Your task to perform on an android device: move an email to a new category in the gmail app Image 0: 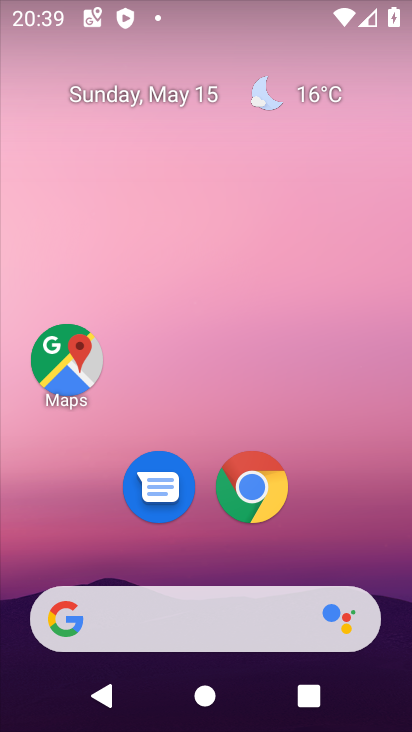
Step 0: drag from (391, 633) to (352, 116)
Your task to perform on an android device: move an email to a new category in the gmail app Image 1: 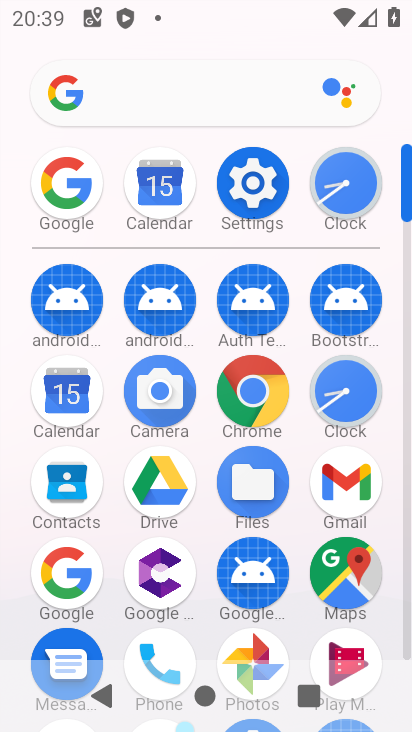
Step 1: click (344, 476)
Your task to perform on an android device: move an email to a new category in the gmail app Image 2: 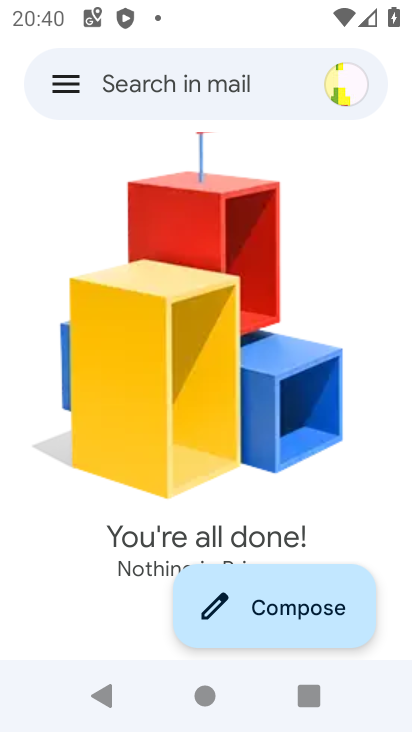
Step 2: press home button
Your task to perform on an android device: move an email to a new category in the gmail app Image 3: 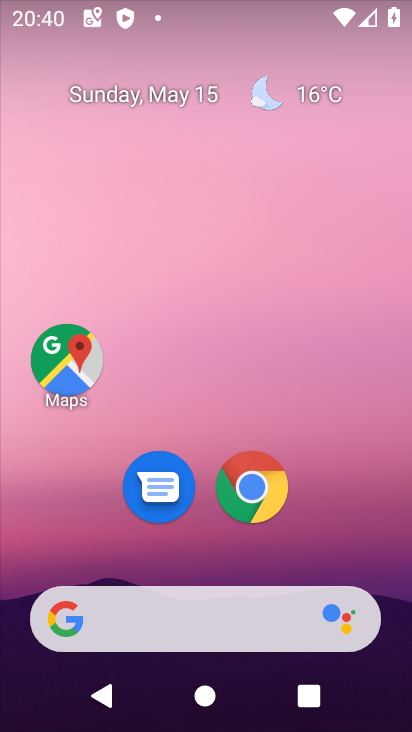
Step 3: drag from (394, 506) to (378, 194)
Your task to perform on an android device: move an email to a new category in the gmail app Image 4: 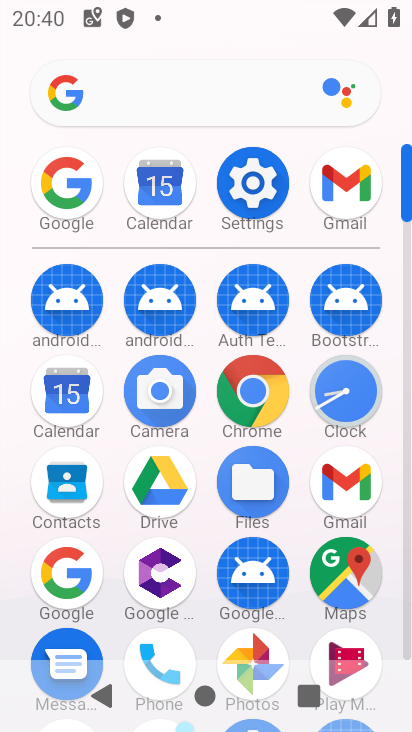
Step 4: click (342, 490)
Your task to perform on an android device: move an email to a new category in the gmail app Image 5: 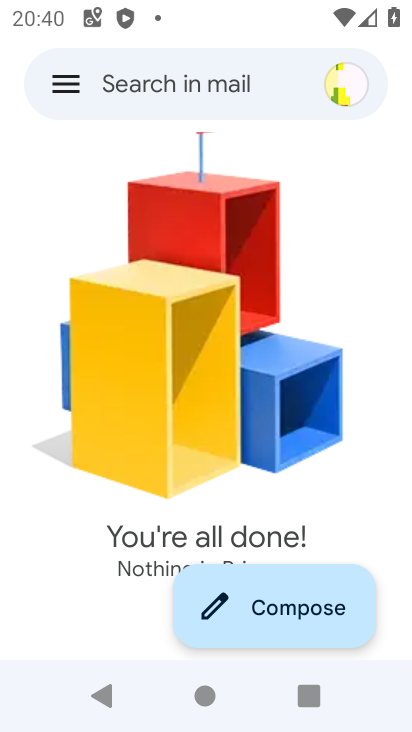
Step 5: click (71, 83)
Your task to perform on an android device: move an email to a new category in the gmail app Image 6: 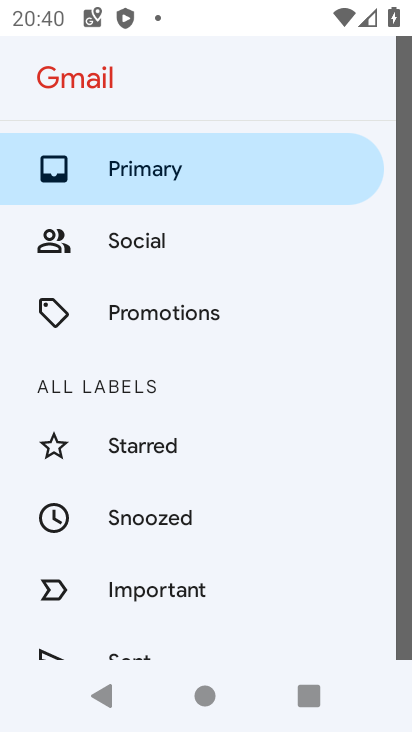
Step 6: click (41, 91)
Your task to perform on an android device: move an email to a new category in the gmail app Image 7: 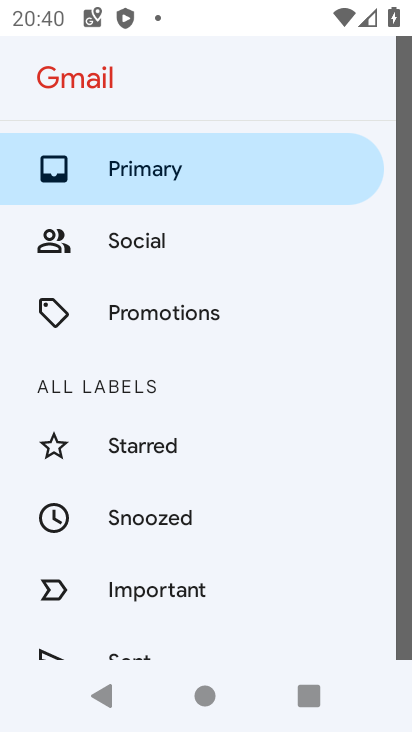
Step 7: click (119, 154)
Your task to perform on an android device: move an email to a new category in the gmail app Image 8: 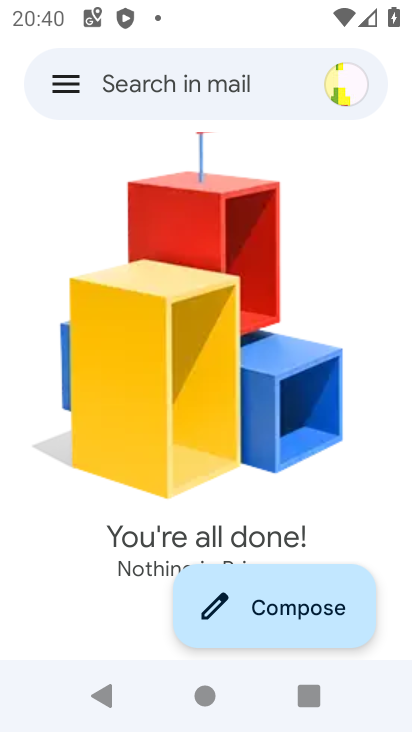
Step 8: task complete